Your task to perform on an android device: toggle show notifications on the lock screen Image 0: 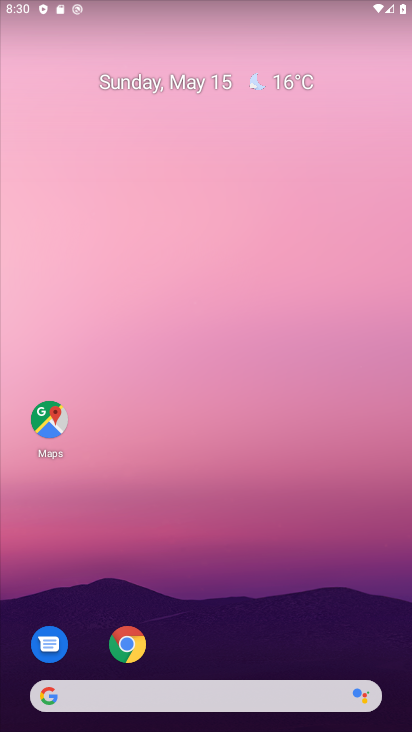
Step 0: drag from (223, 359) to (245, 100)
Your task to perform on an android device: toggle show notifications on the lock screen Image 1: 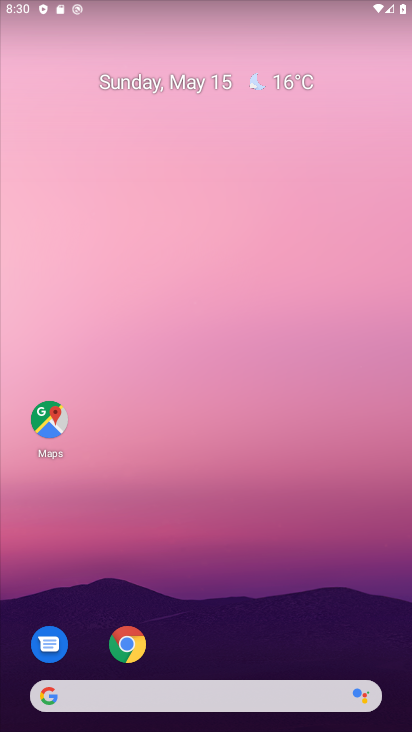
Step 1: drag from (229, 582) to (295, 89)
Your task to perform on an android device: toggle show notifications on the lock screen Image 2: 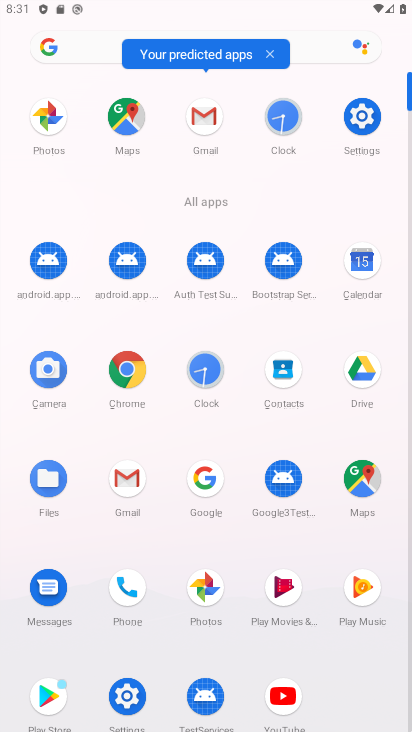
Step 2: click (359, 115)
Your task to perform on an android device: toggle show notifications on the lock screen Image 3: 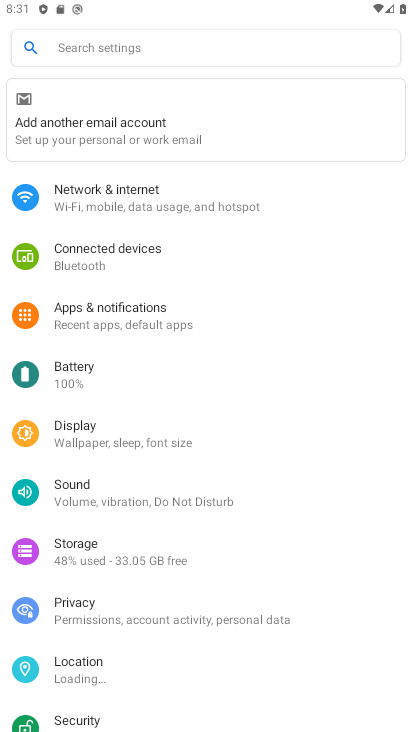
Step 3: click (142, 316)
Your task to perform on an android device: toggle show notifications on the lock screen Image 4: 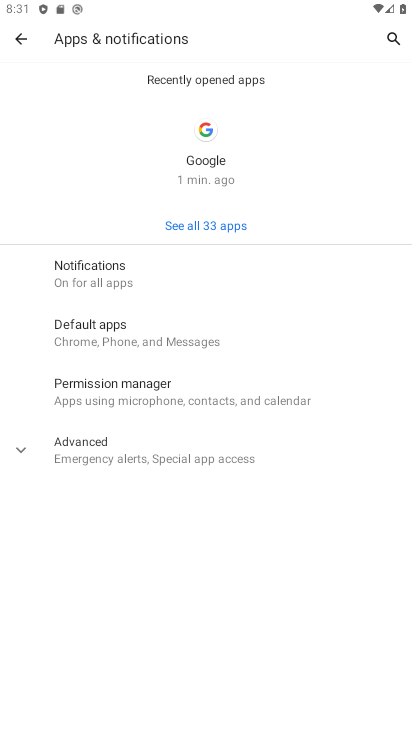
Step 4: click (141, 277)
Your task to perform on an android device: toggle show notifications on the lock screen Image 5: 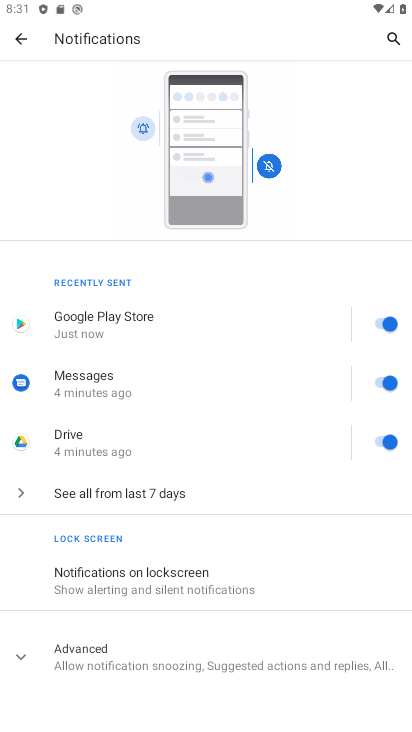
Step 5: click (158, 571)
Your task to perform on an android device: toggle show notifications on the lock screen Image 6: 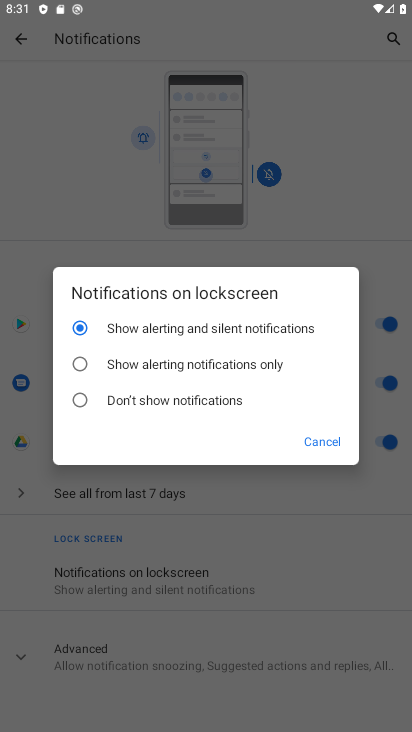
Step 6: click (81, 324)
Your task to perform on an android device: toggle show notifications on the lock screen Image 7: 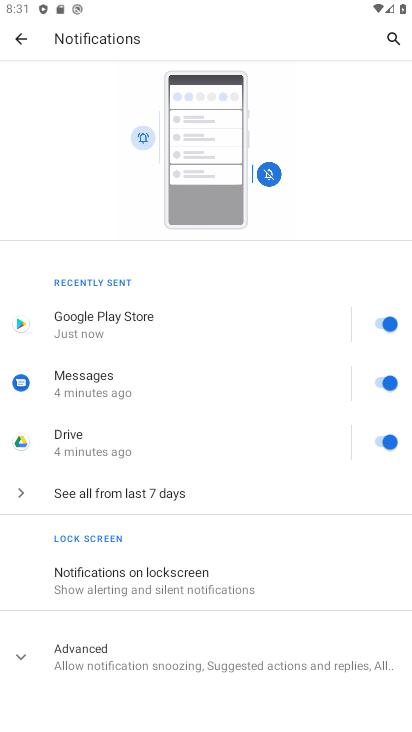
Step 7: task complete